Your task to perform on an android device: Is it going to rain tomorrow? Image 0: 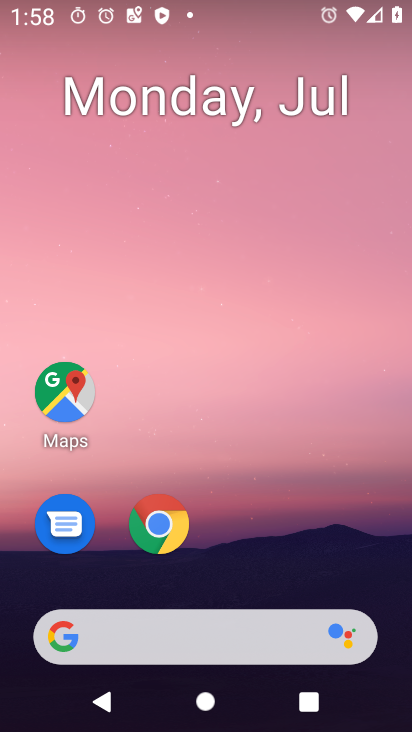
Step 0: press home button
Your task to perform on an android device: Is it going to rain tomorrow? Image 1: 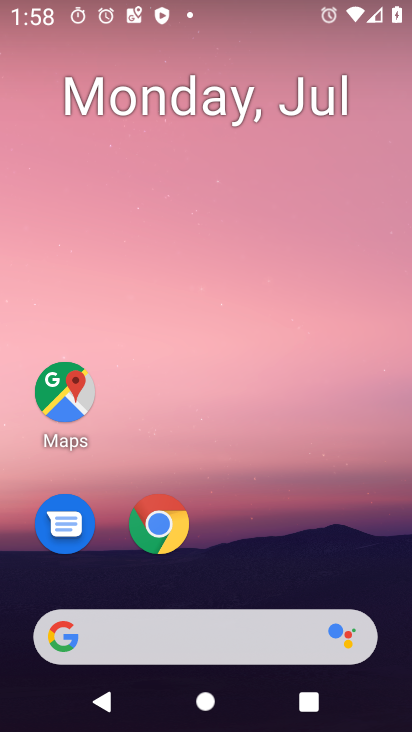
Step 1: click (63, 645)
Your task to perform on an android device: Is it going to rain tomorrow? Image 2: 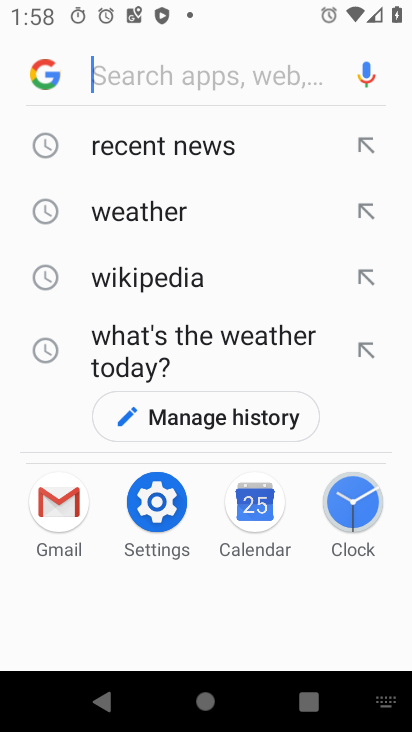
Step 2: type "Is it going to rain tomorrow?"
Your task to perform on an android device: Is it going to rain tomorrow? Image 3: 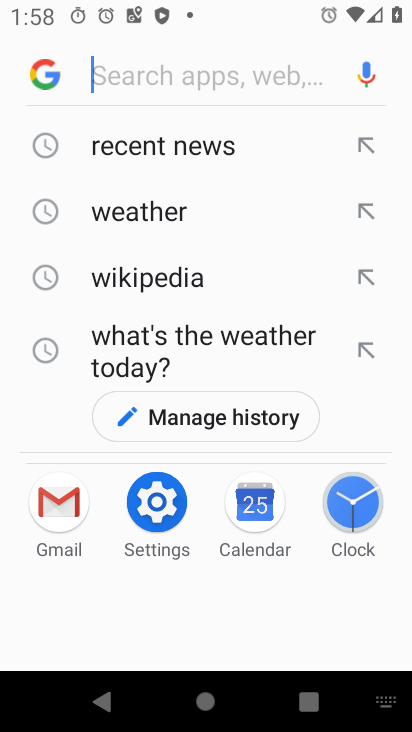
Step 3: click (146, 77)
Your task to perform on an android device: Is it going to rain tomorrow? Image 4: 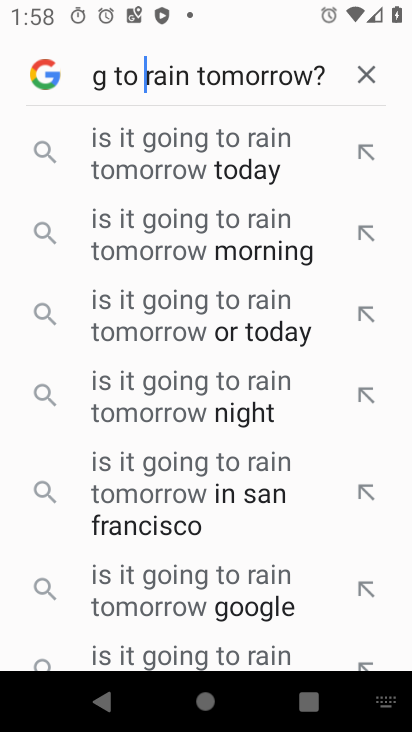
Step 4: press enter
Your task to perform on an android device: Is it going to rain tomorrow? Image 5: 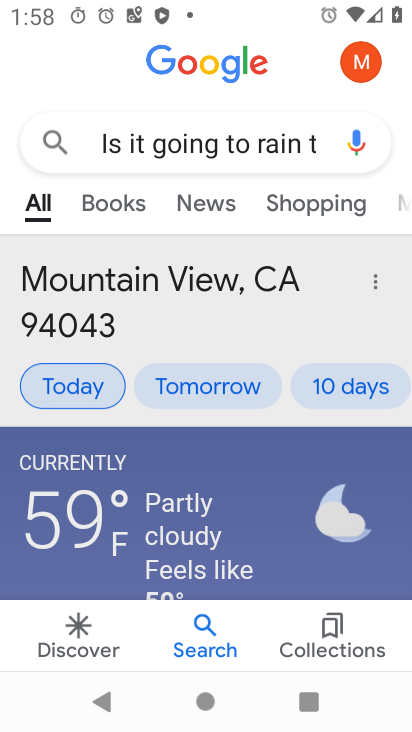
Step 5: task complete